Your task to perform on an android device: Open location settings Image 0: 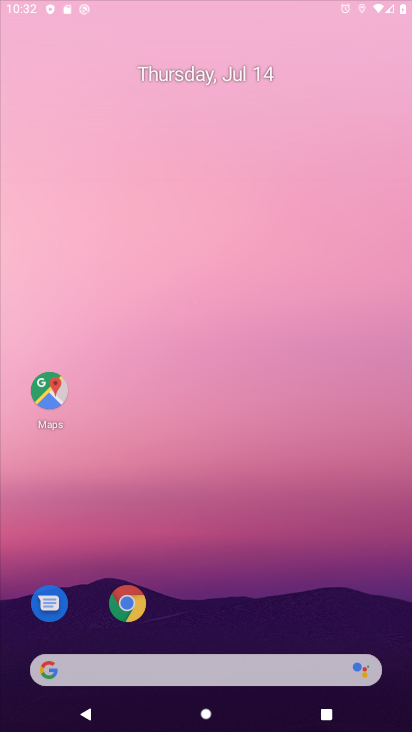
Step 0: press home button
Your task to perform on an android device: Open location settings Image 1: 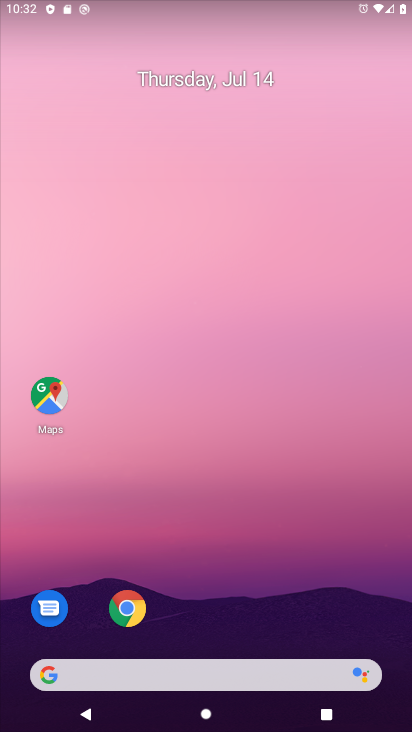
Step 1: drag from (224, 586) to (234, 241)
Your task to perform on an android device: Open location settings Image 2: 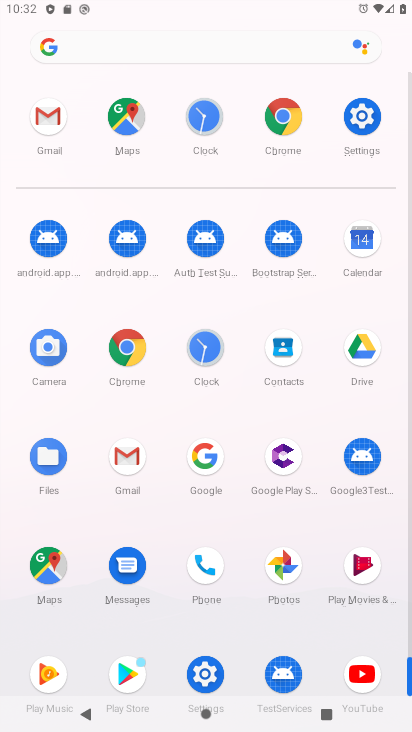
Step 2: click (204, 660)
Your task to perform on an android device: Open location settings Image 3: 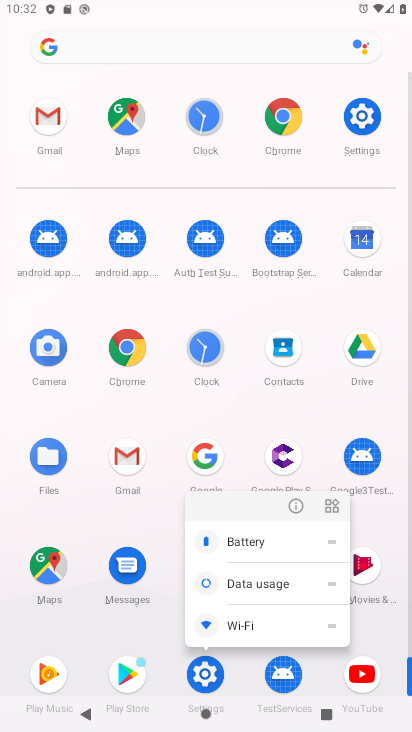
Step 3: click (204, 664)
Your task to perform on an android device: Open location settings Image 4: 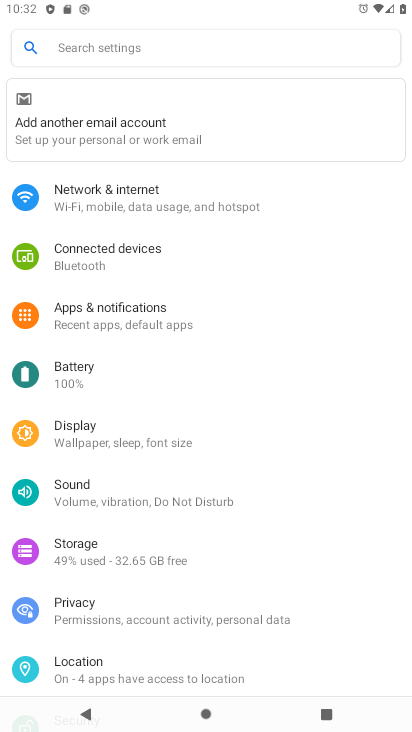
Step 4: click (86, 665)
Your task to perform on an android device: Open location settings Image 5: 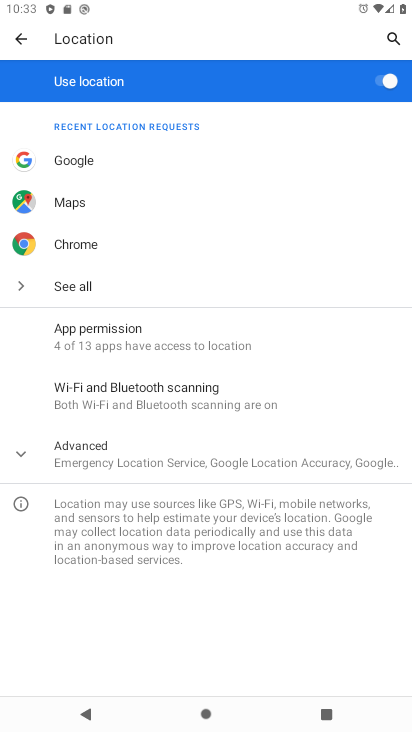
Step 5: task complete